Your task to perform on an android device: Open CNN.com Image 0: 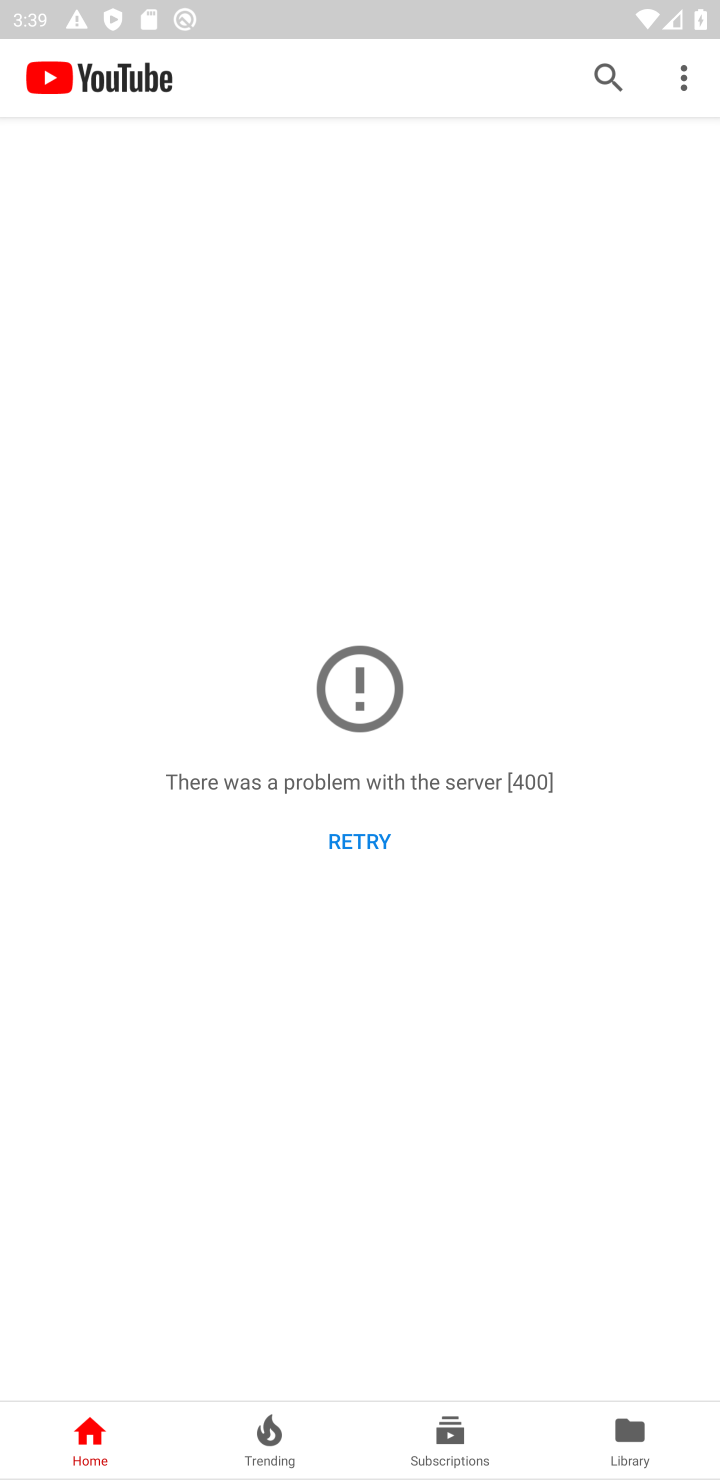
Step 0: press home button
Your task to perform on an android device: Open CNN.com Image 1: 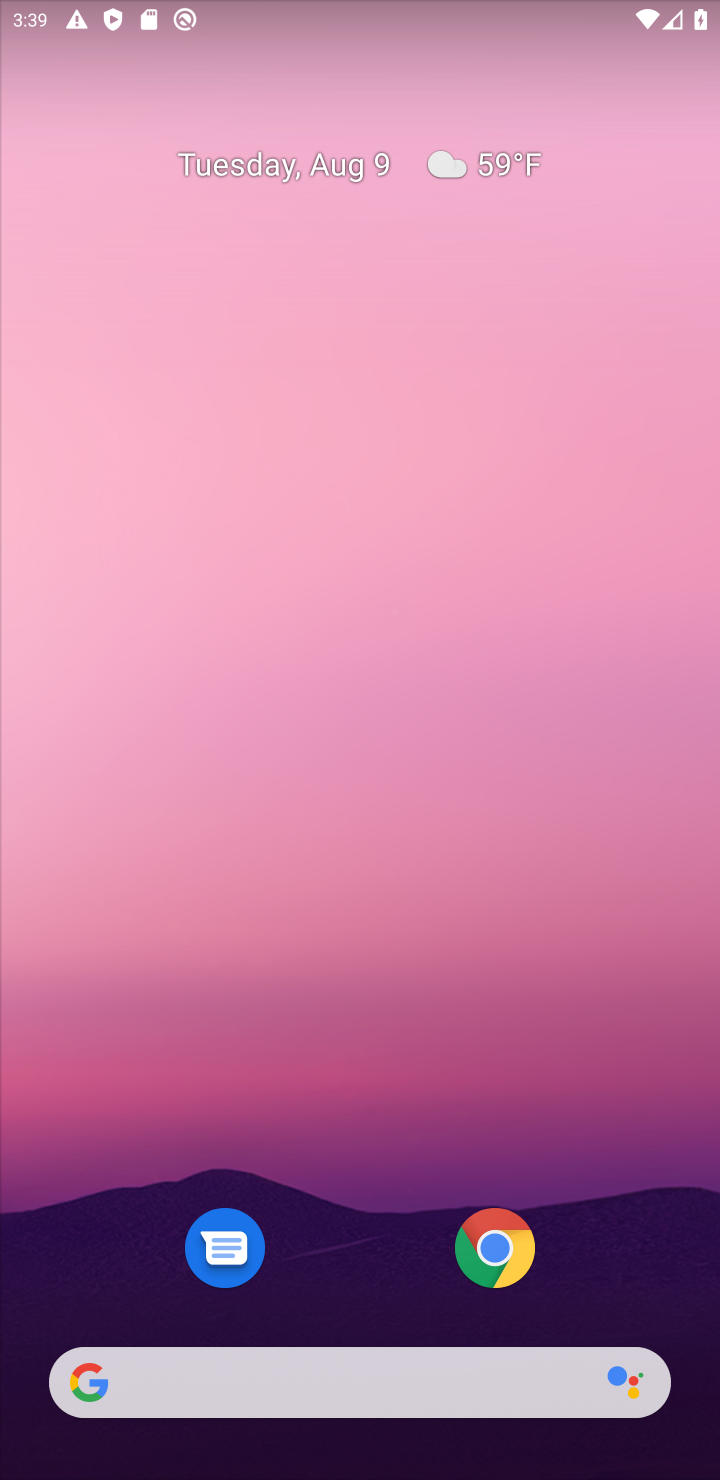
Step 1: drag from (358, 1221) to (122, 106)
Your task to perform on an android device: Open CNN.com Image 2: 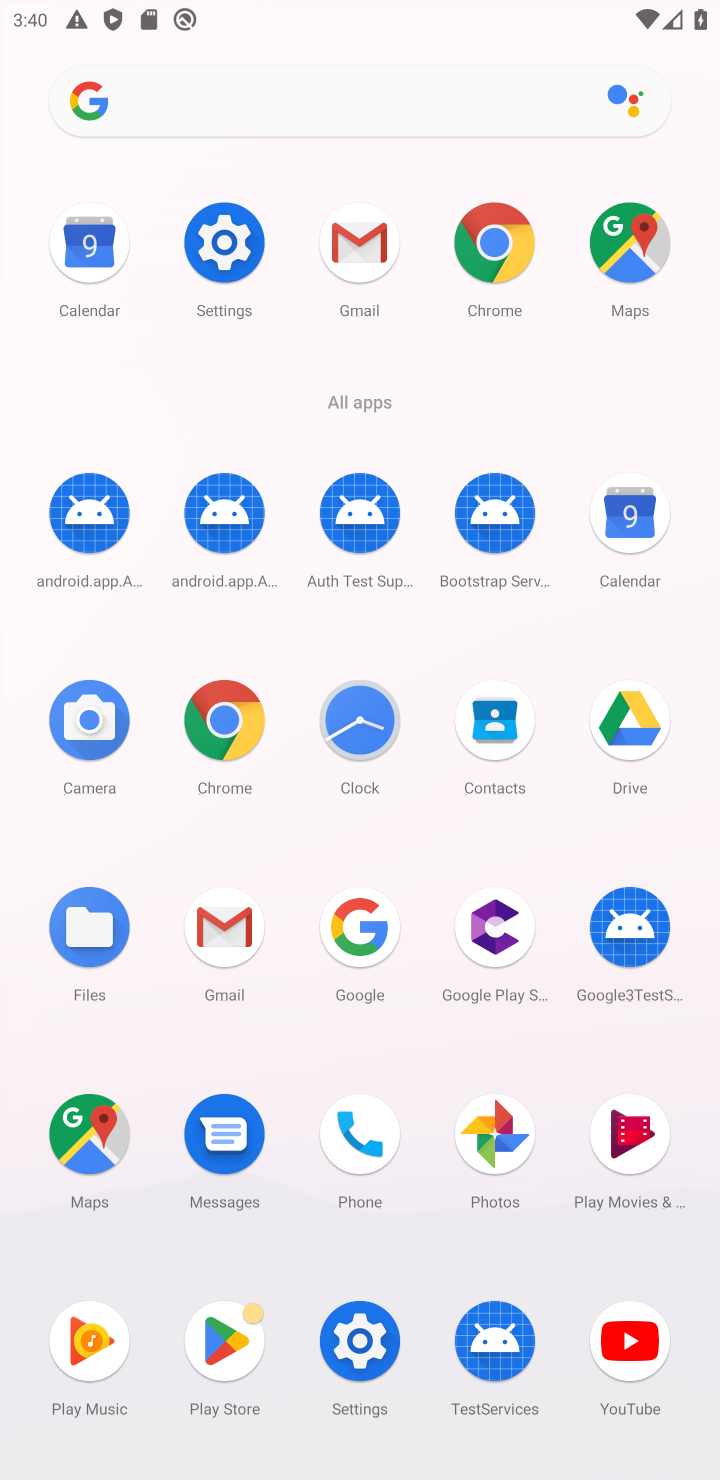
Step 2: click (234, 720)
Your task to perform on an android device: Open CNN.com Image 3: 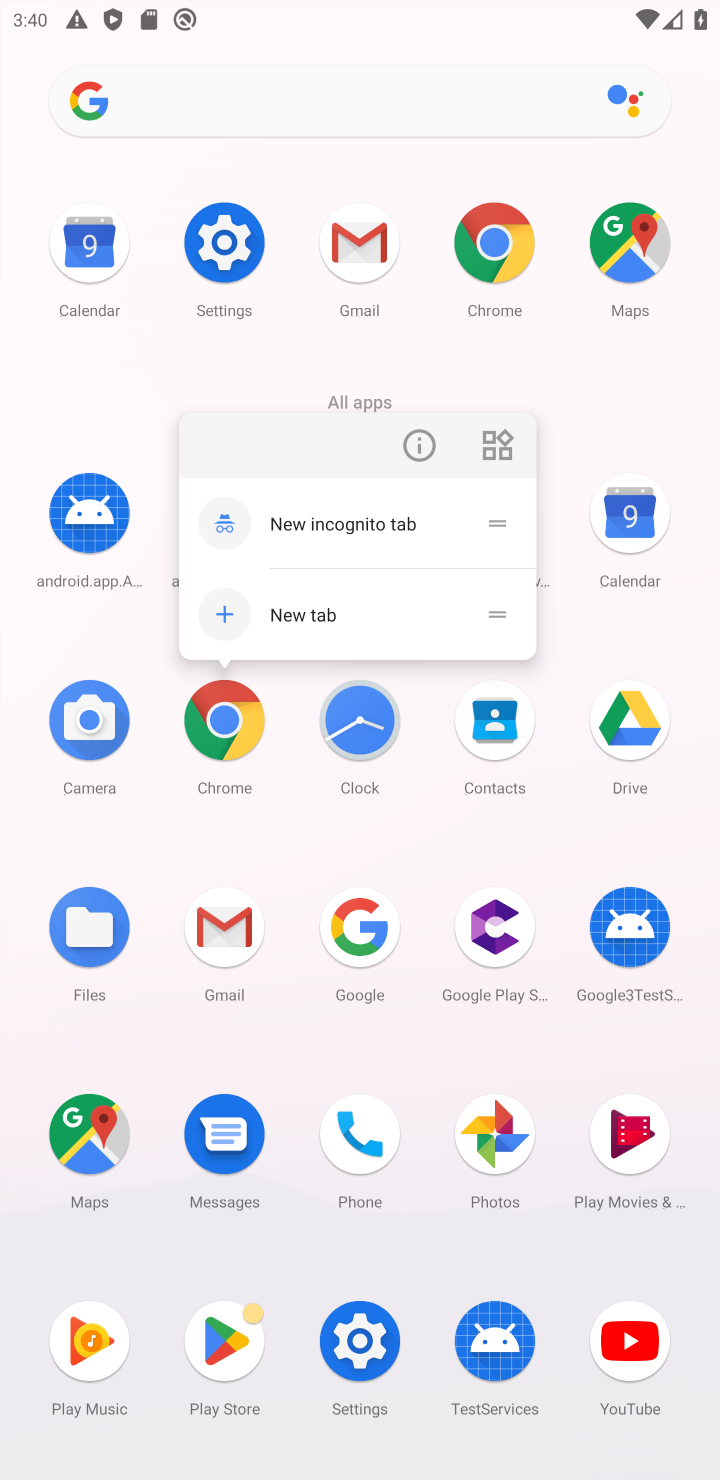
Step 3: click (234, 706)
Your task to perform on an android device: Open CNN.com Image 4: 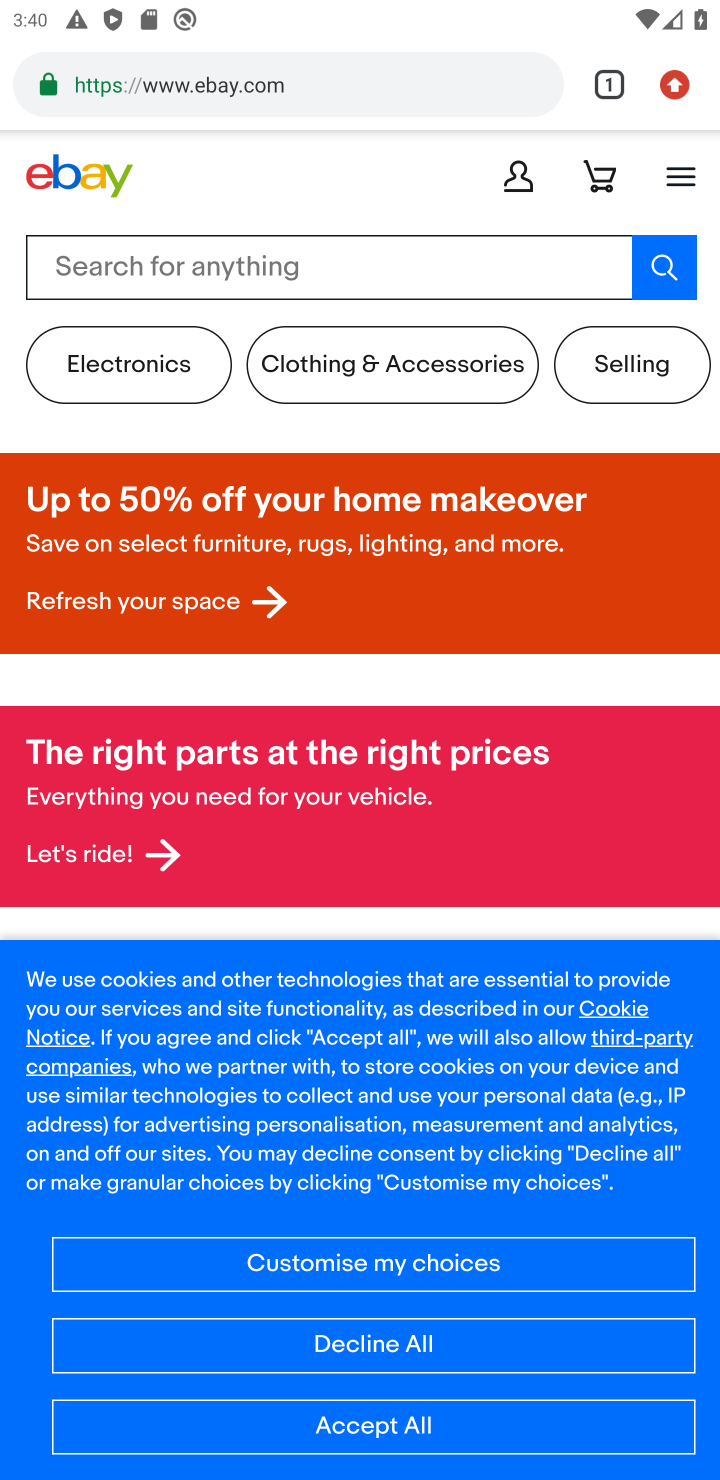
Step 4: click (186, 53)
Your task to perform on an android device: Open CNN.com Image 5: 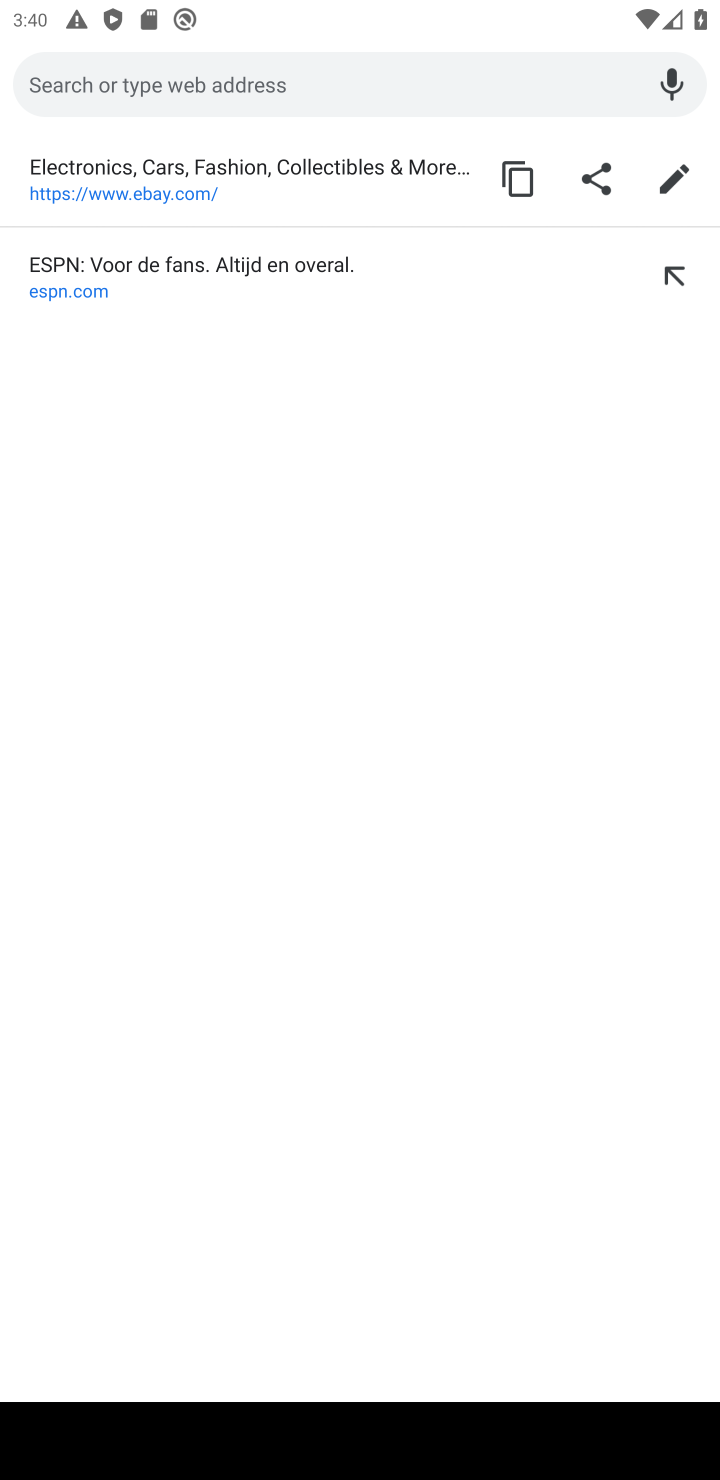
Step 5: type "cnn.com"
Your task to perform on an android device: Open CNN.com Image 6: 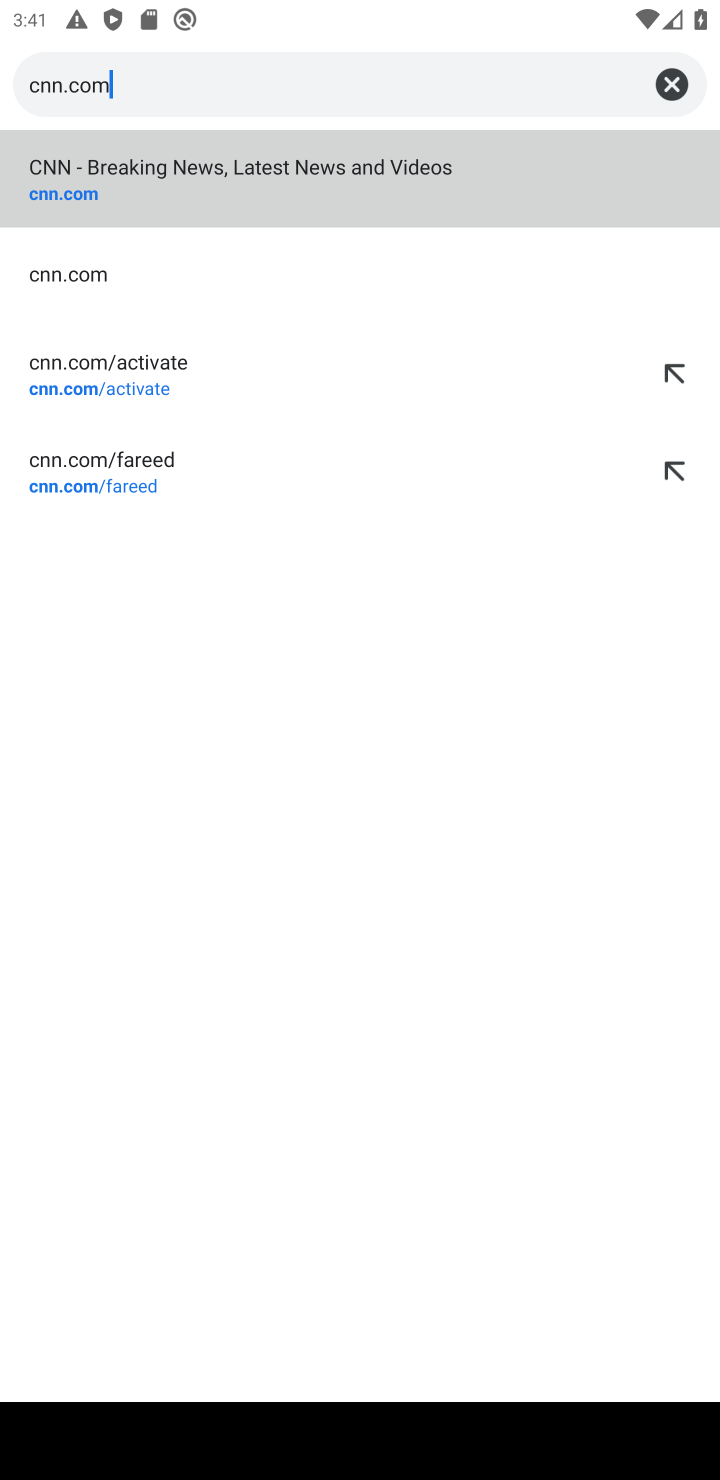
Step 6: click (117, 187)
Your task to perform on an android device: Open CNN.com Image 7: 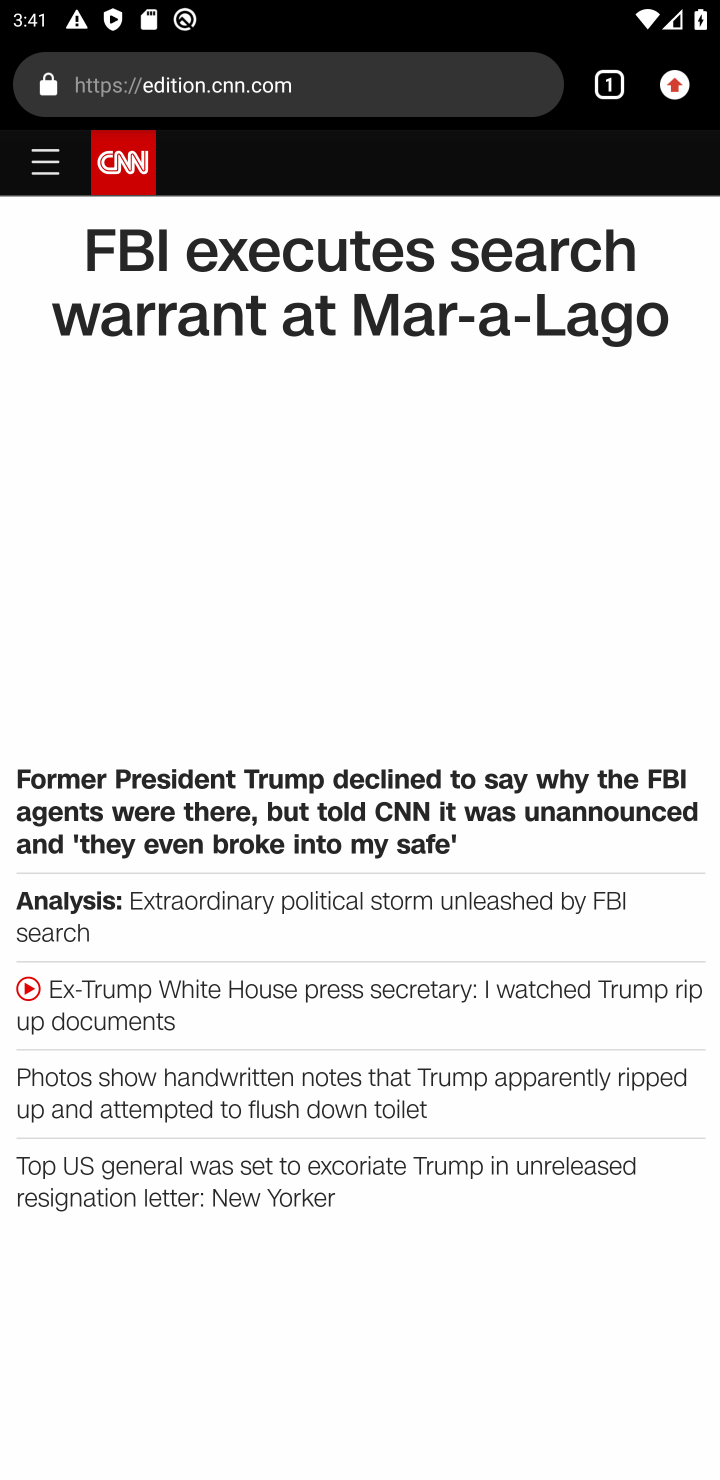
Step 7: task complete